Your task to perform on an android device: Turn off the flashlight Image 0: 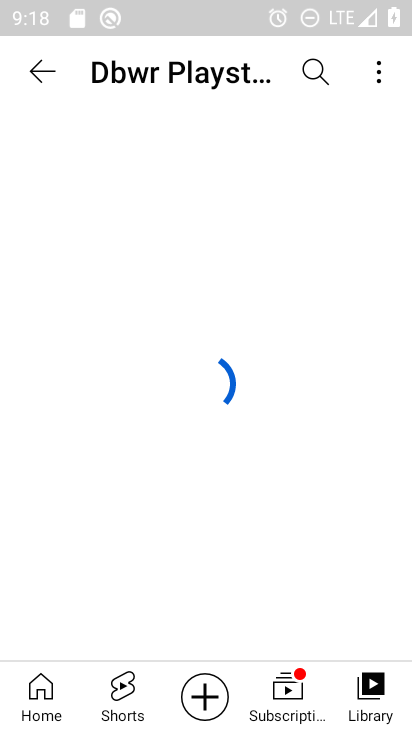
Step 0: drag from (346, 584) to (410, 411)
Your task to perform on an android device: Turn off the flashlight Image 1: 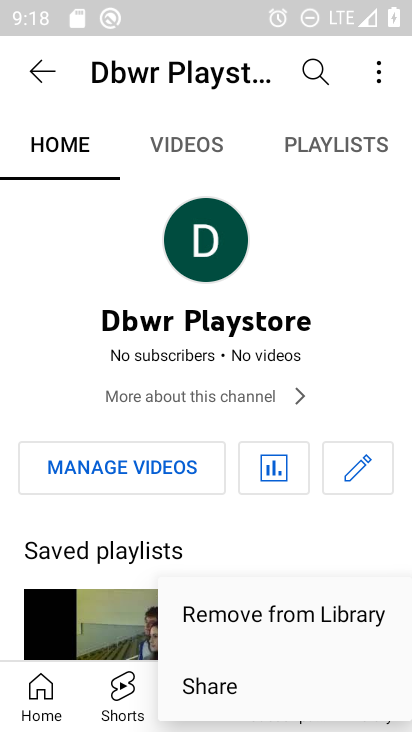
Step 1: press home button
Your task to perform on an android device: Turn off the flashlight Image 2: 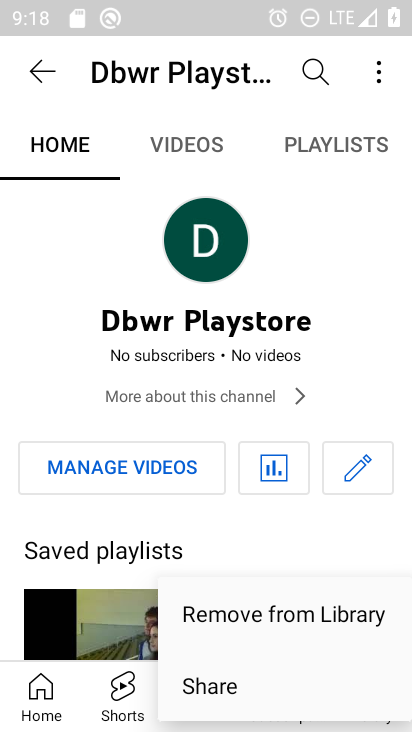
Step 2: drag from (410, 411) to (409, 467)
Your task to perform on an android device: Turn off the flashlight Image 3: 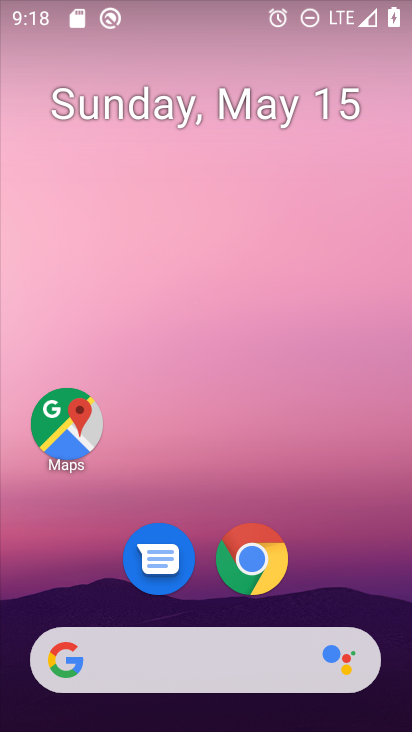
Step 3: drag from (354, 546) to (281, 199)
Your task to perform on an android device: Turn off the flashlight Image 4: 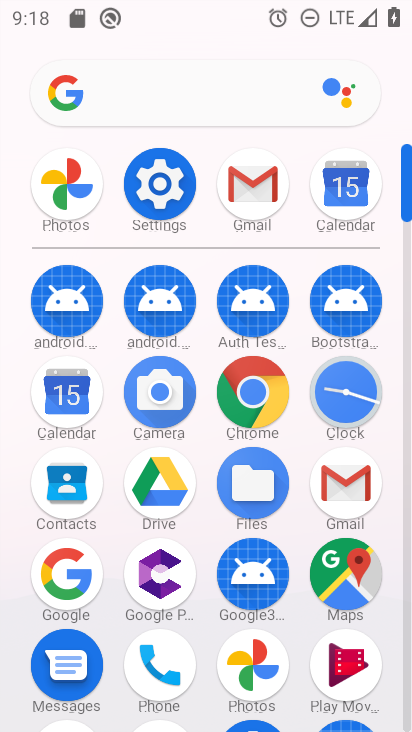
Step 4: click (170, 206)
Your task to perform on an android device: Turn off the flashlight Image 5: 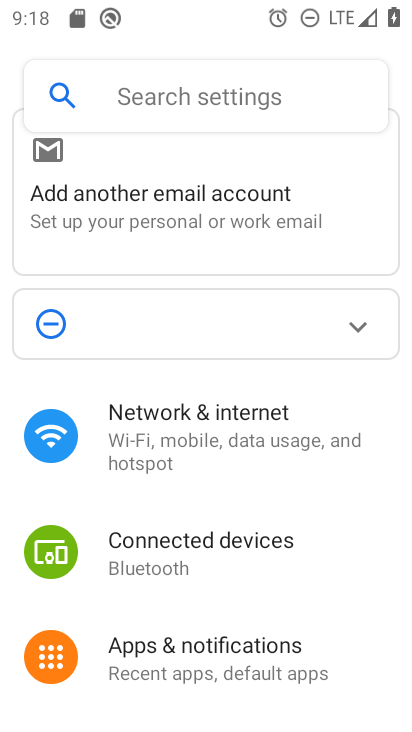
Step 5: click (218, 516)
Your task to perform on an android device: Turn off the flashlight Image 6: 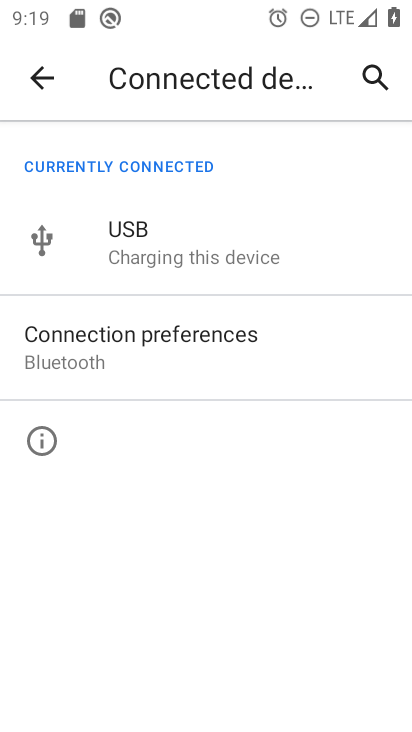
Step 6: task complete